Your task to perform on an android device: change alarm snooze length Image 0: 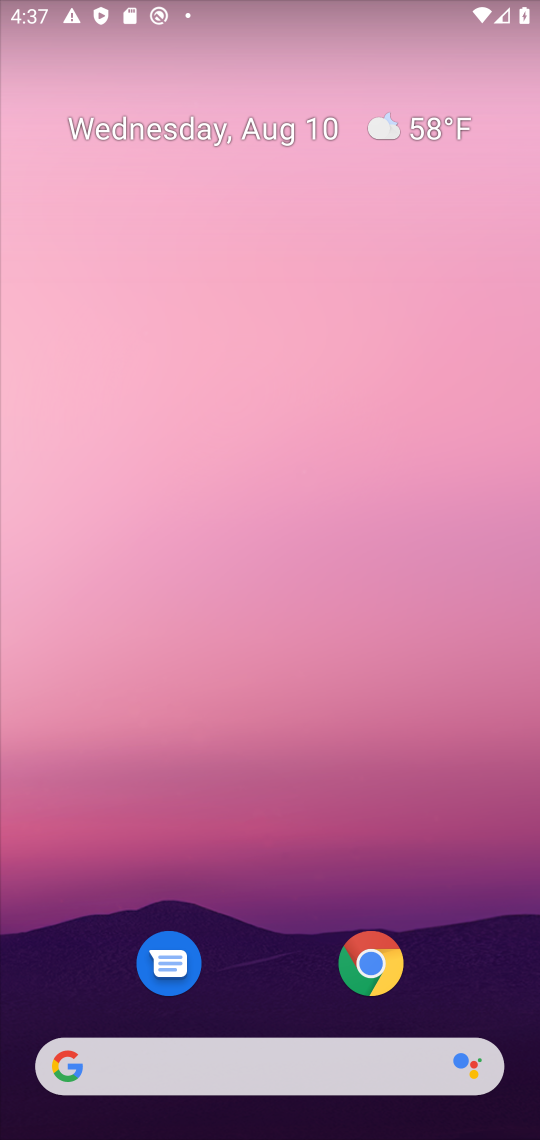
Step 0: press home button
Your task to perform on an android device: change alarm snooze length Image 1: 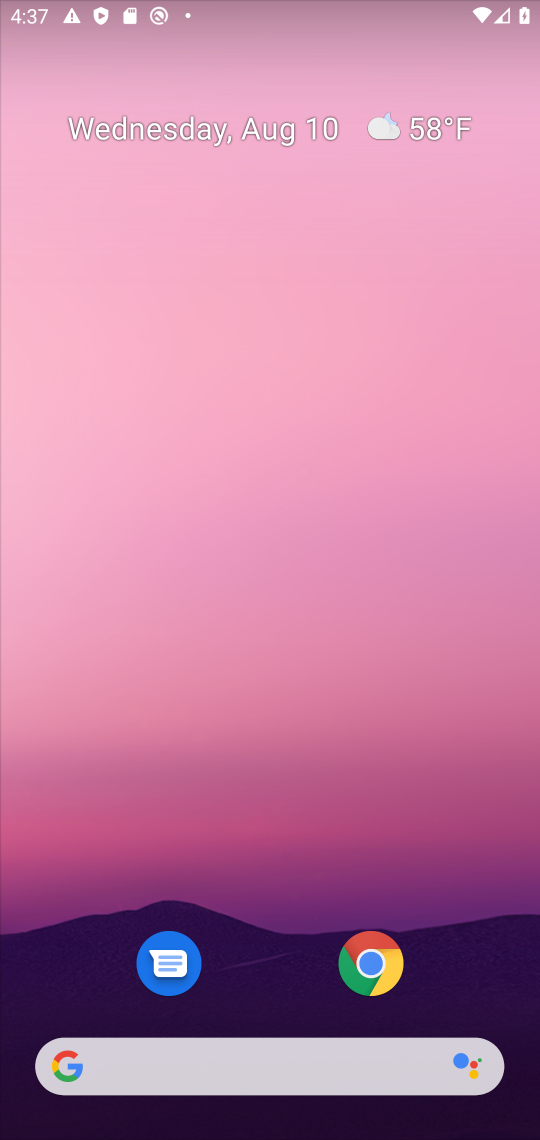
Step 1: drag from (276, 991) to (410, 67)
Your task to perform on an android device: change alarm snooze length Image 2: 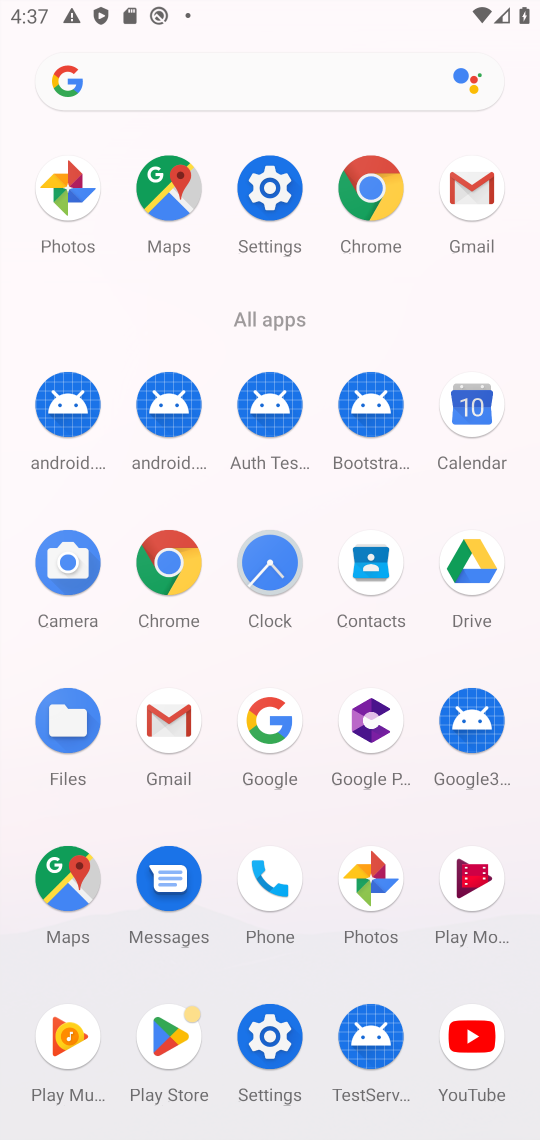
Step 2: click (263, 575)
Your task to perform on an android device: change alarm snooze length Image 3: 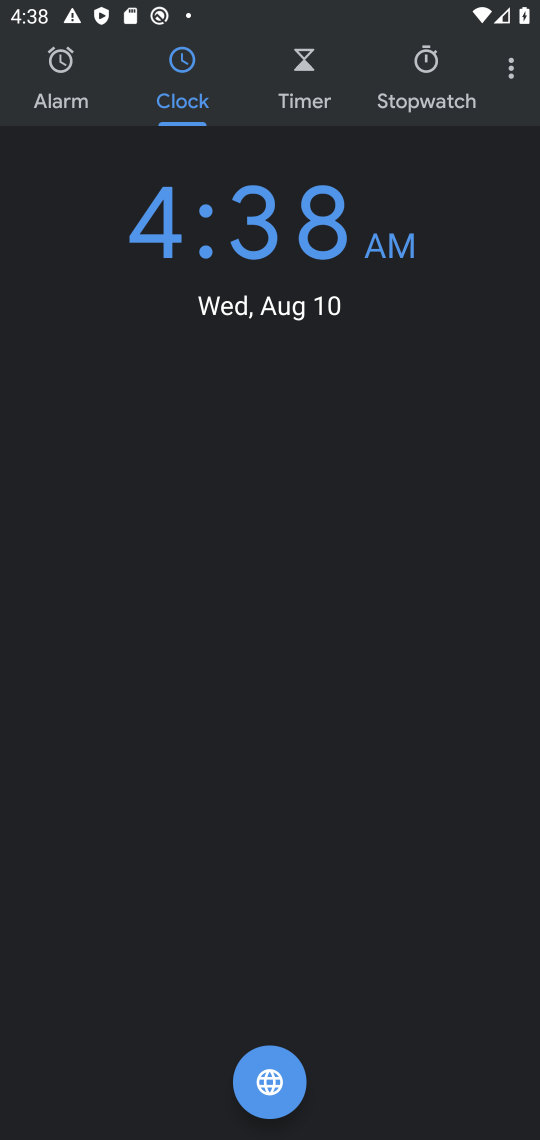
Step 3: click (513, 66)
Your task to perform on an android device: change alarm snooze length Image 4: 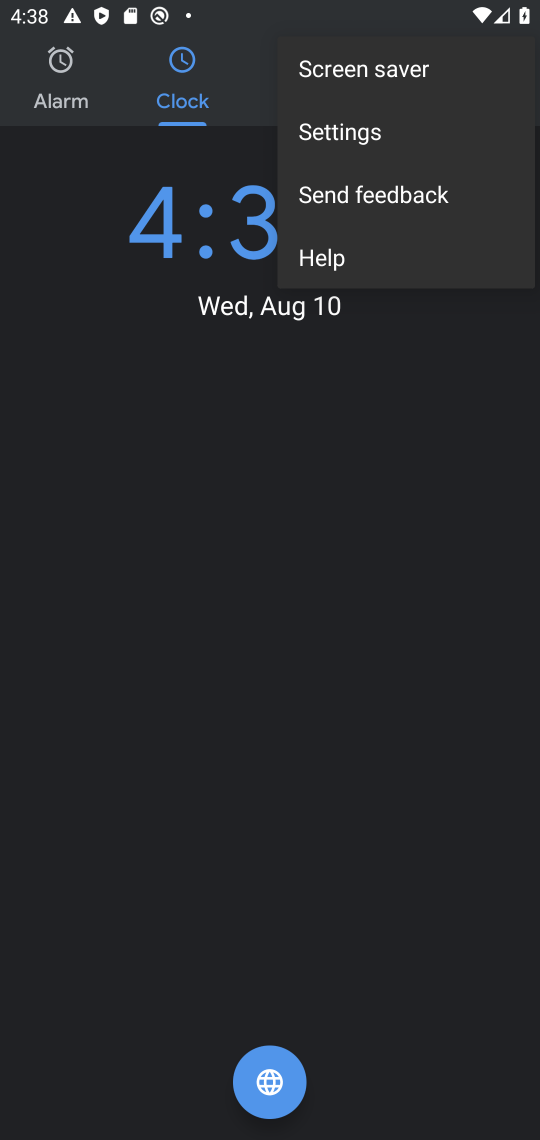
Step 4: click (344, 145)
Your task to perform on an android device: change alarm snooze length Image 5: 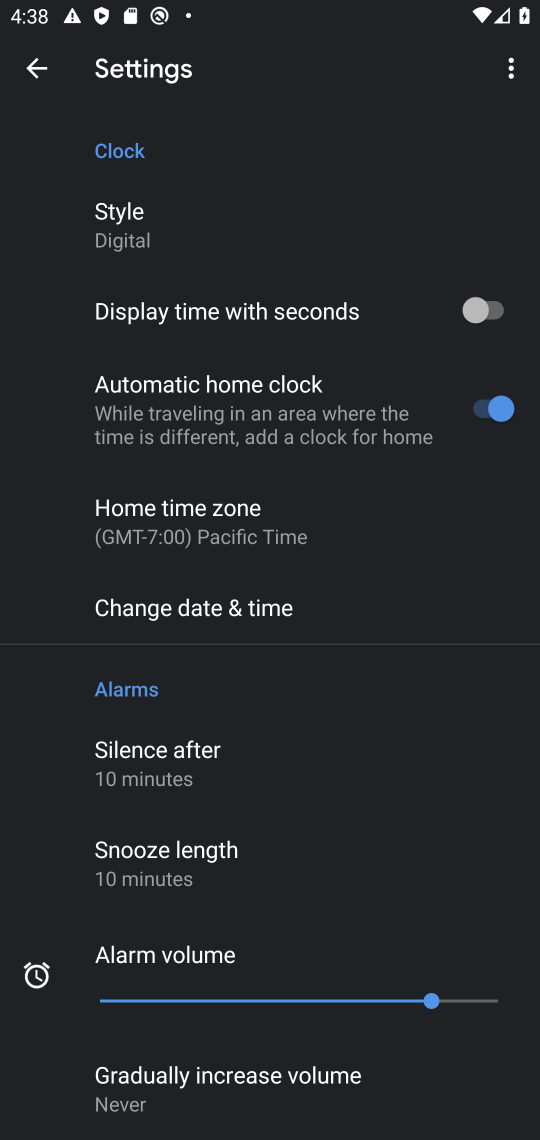
Step 5: click (198, 846)
Your task to perform on an android device: change alarm snooze length Image 6: 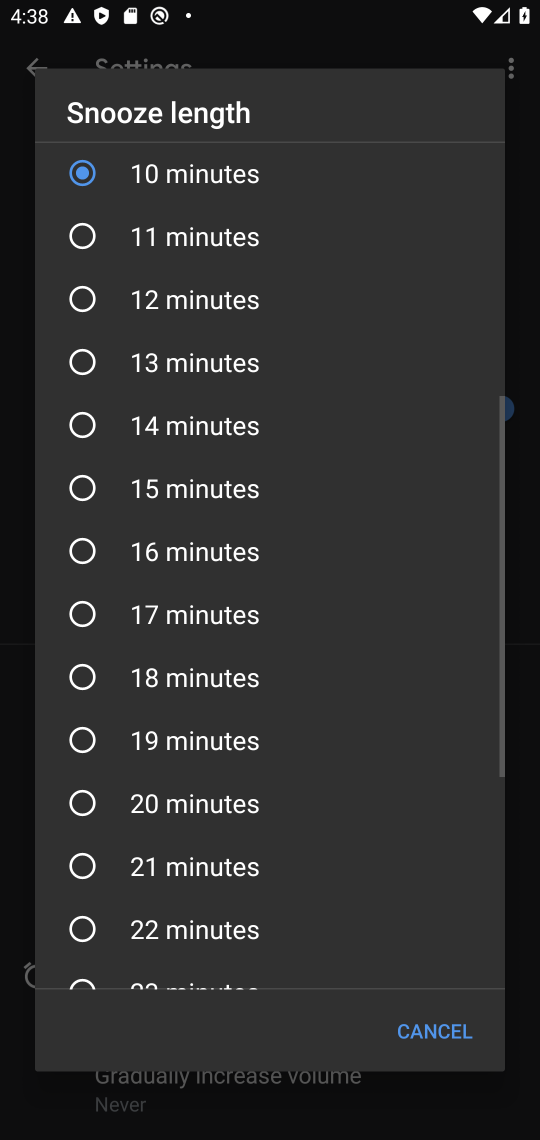
Step 6: click (196, 676)
Your task to perform on an android device: change alarm snooze length Image 7: 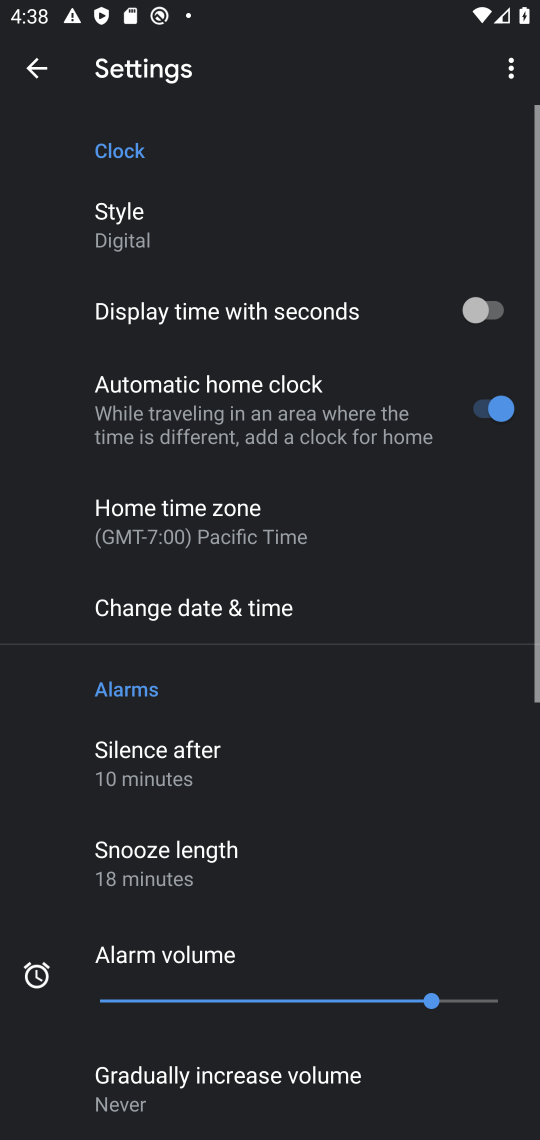
Step 7: task complete